Your task to perform on an android device: Open Maps and search for coffee Image 0: 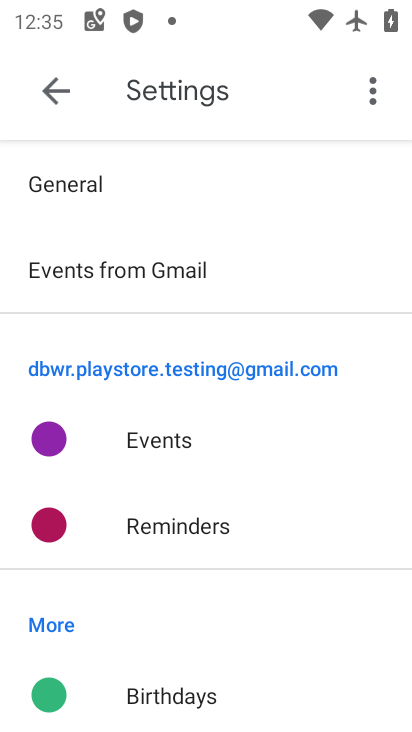
Step 0: press home button
Your task to perform on an android device: Open Maps and search for coffee Image 1: 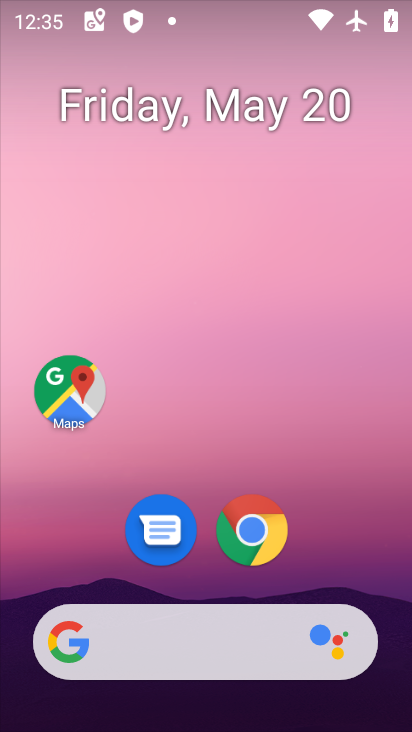
Step 1: click (54, 404)
Your task to perform on an android device: Open Maps and search for coffee Image 2: 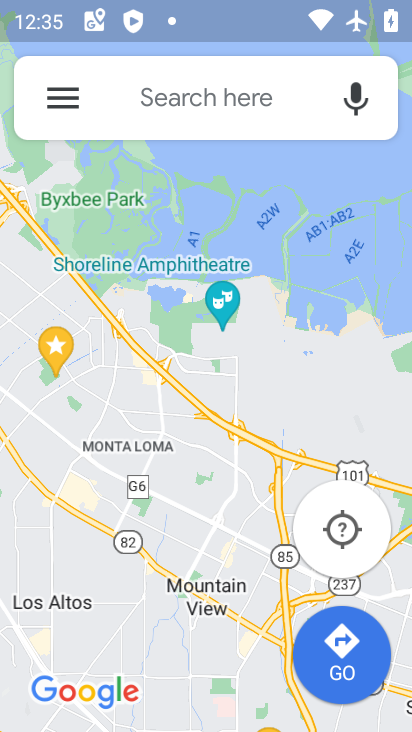
Step 2: click (222, 105)
Your task to perform on an android device: Open Maps and search for coffee Image 3: 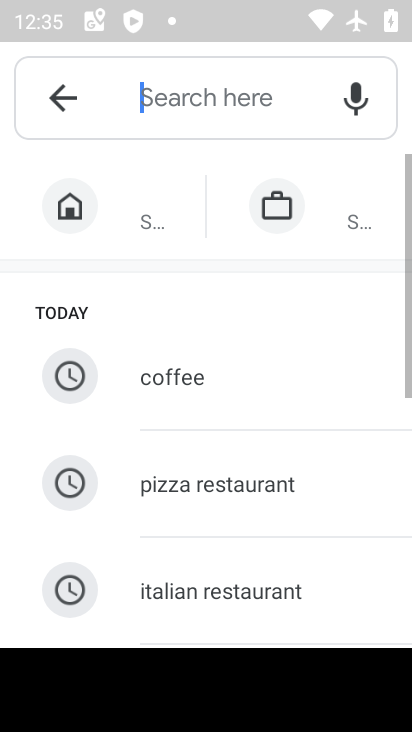
Step 3: click (195, 379)
Your task to perform on an android device: Open Maps and search for coffee Image 4: 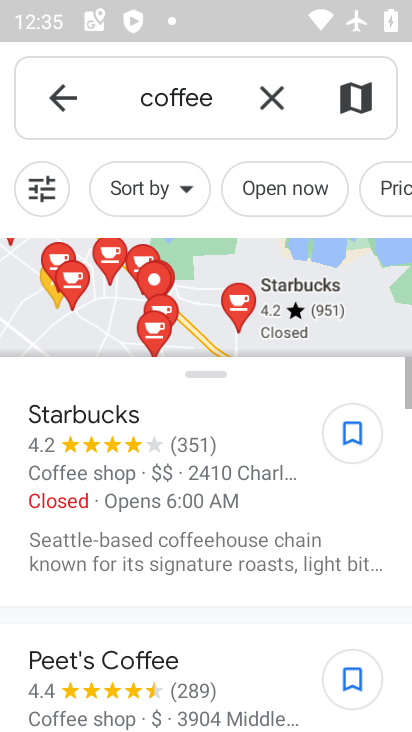
Step 4: task complete